Your task to perform on an android device: Go to notification settings Image 0: 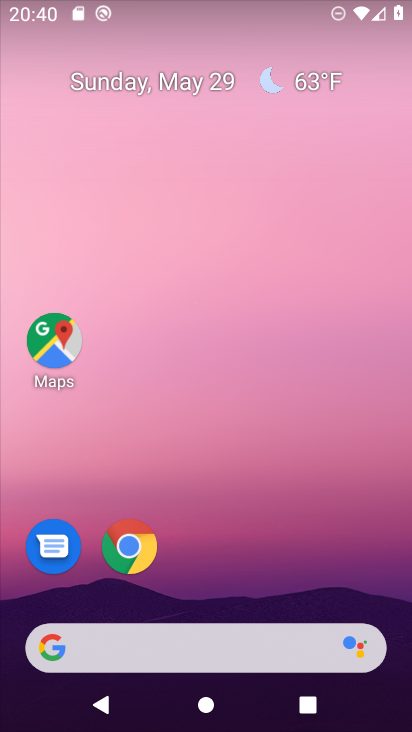
Step 0: press home button
Your task to perform on an android device: Go to notification settings Image 1: 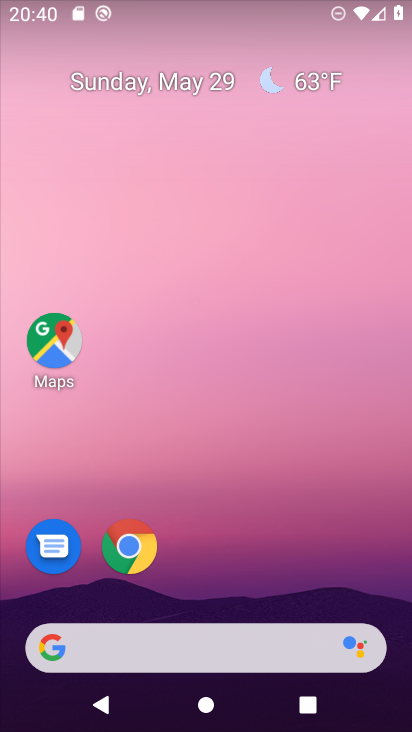
Step 1: drag from (135, 655) to (304, 58)
Your task to perform on an android device: Go to notification settings Image 2: 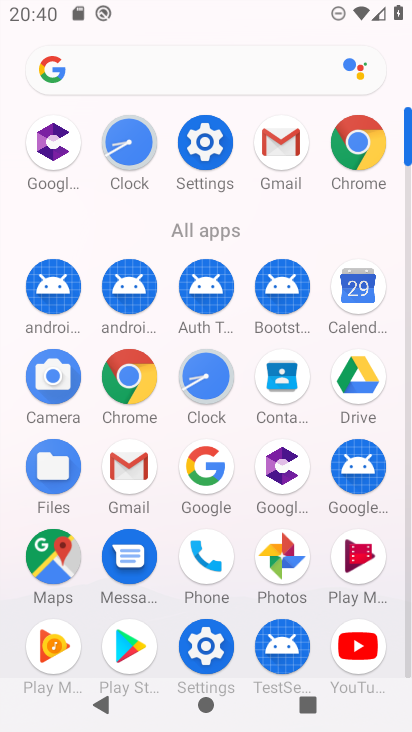
Step 2: click (204, 145)
Your task to perform on an android device: Go to notification settings Image 3: 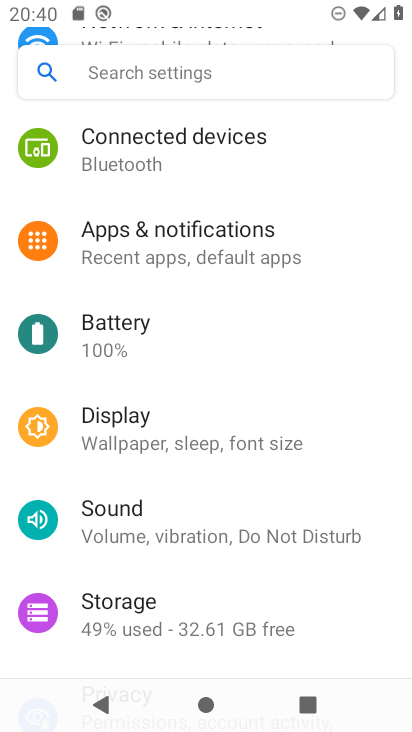
Step 3: click (222, 240)
Your task to perform on an android device: Go to notification settings Image 4: 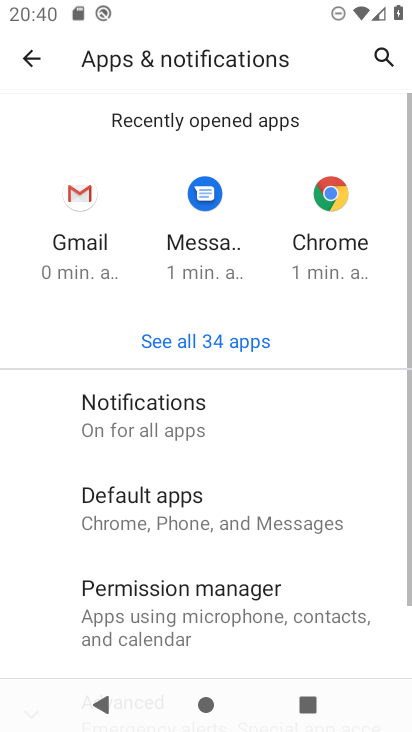
Step 4: click (188, 410)
Your task to perform on an android device: Go to notification settings Image 5: 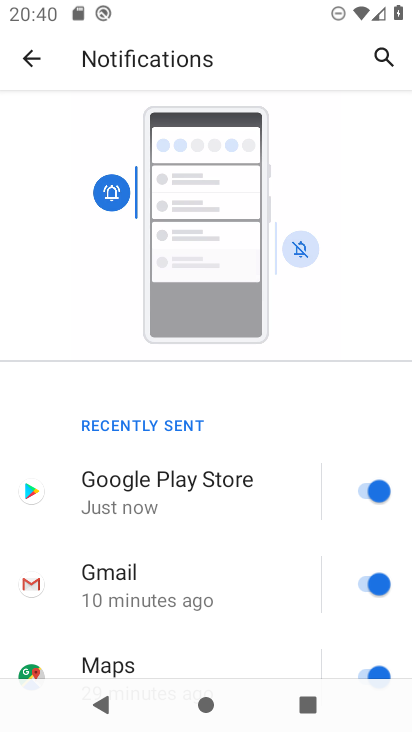
Step 5: task complete